Your task to perform on an android device: turn off wifi Image 0: 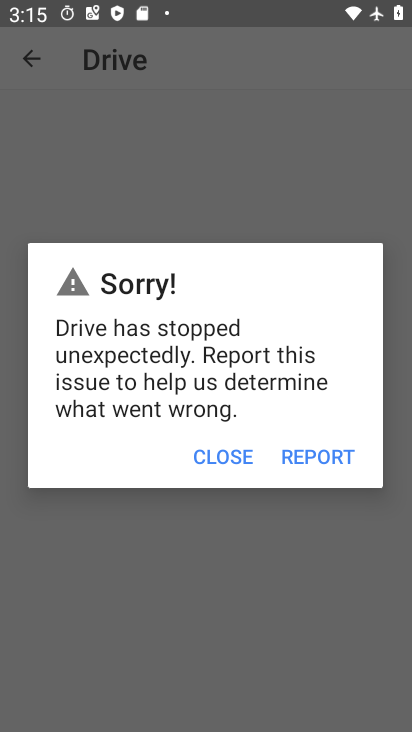
Step 0: press back button
Your task to perform on an android device: turn off wifi Image 1: 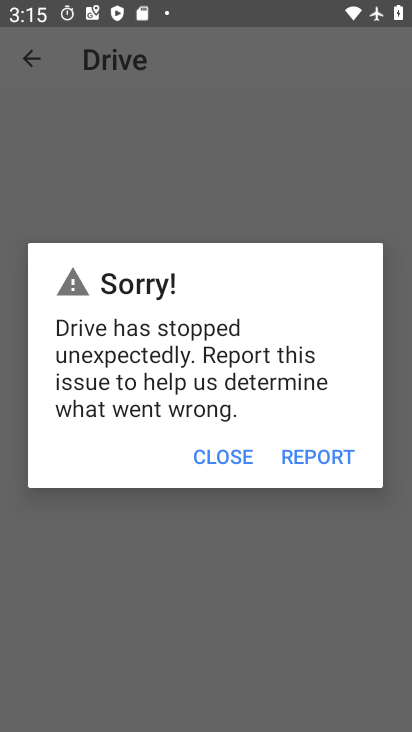
Step 1: press home button
Your task to perform on an android device: turn off wifi Image 2: 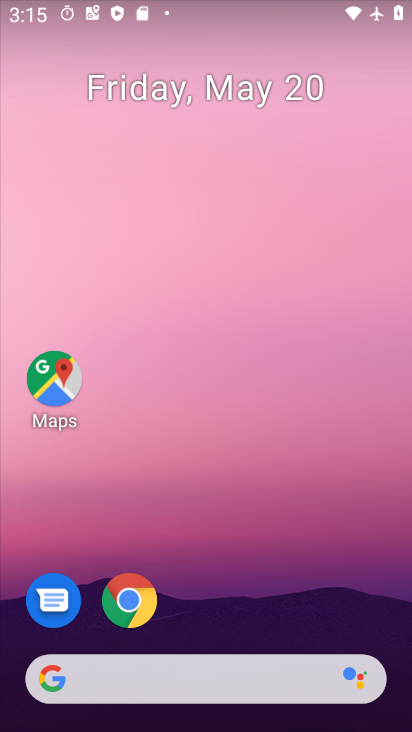
Step 2: drag from (219, 490) to (212, 55)
Your task to perform on an android device: turn off wifi Image 3: 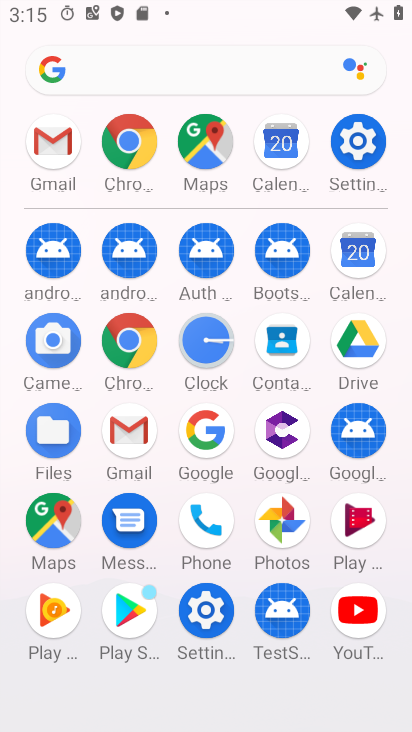
Step 3: drag from (22, 523) to (26, 269)
Your task to perform on an android device: turn off wifi Image 4: 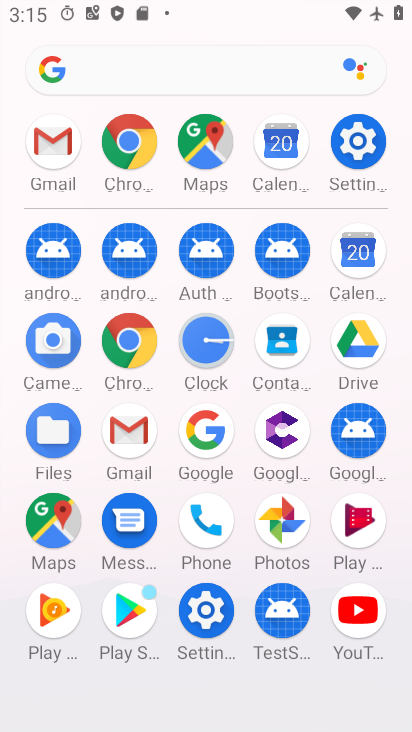
Step 4: click (206, 609)
Your task to perform on an android device: turn off wifi Image 5: 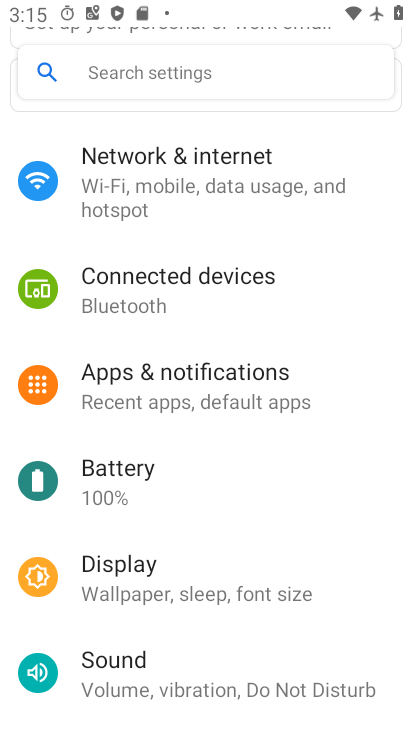
Step 5: click (185, 203)
Your task to perform on an android device: turn off wifi Image 6: 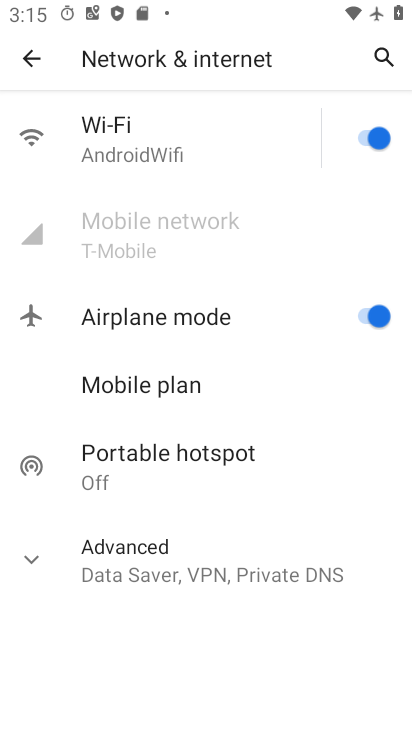
Step 6: click (359, 139)
Your task to perform on an android device: turn off wifi Image 7: 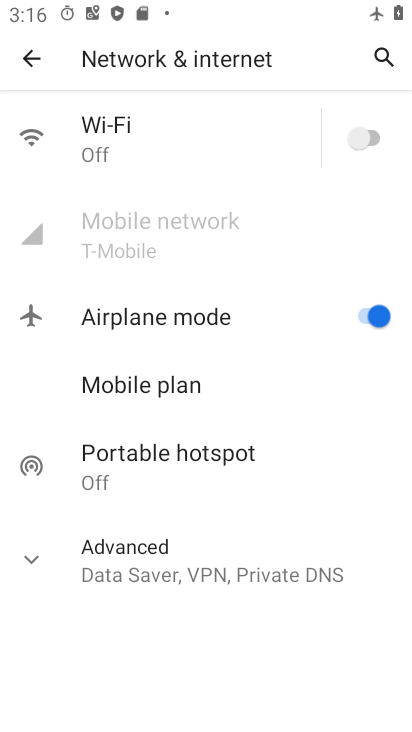
Step 7: task complete